Your task to perform on an android device: Go to wifi settings Image 0: 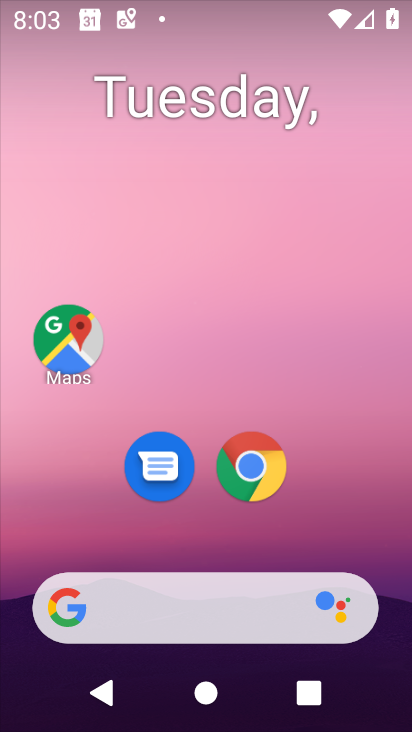
Step 0: drag from (326, 546) to (228, 120)
Your task to perform on an android device: Go to wifi settings Image 1: 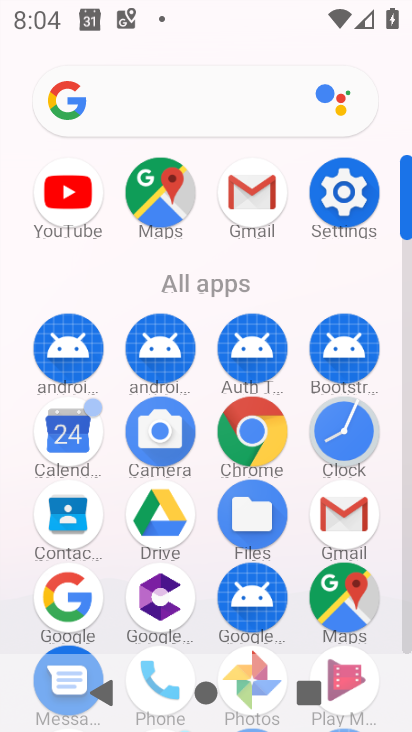
Step 1: click (365, 224)
Your task to perform on an android device: Go to wifi settings Image 2: 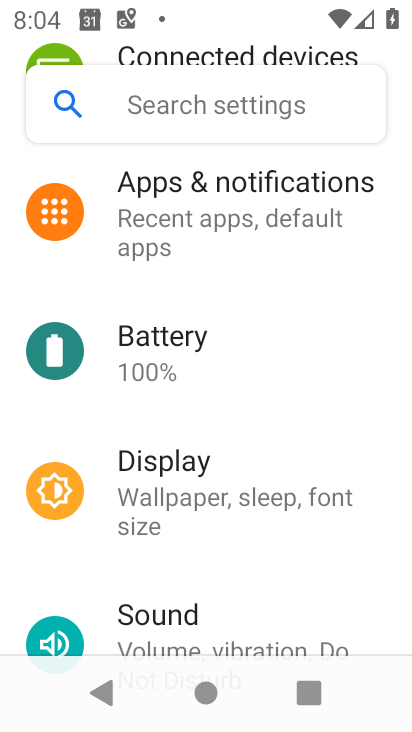
Step 2: drag from (310, 252) to (371, 458)
Your task to perform on an android device: Go to wifi settings Image 3: 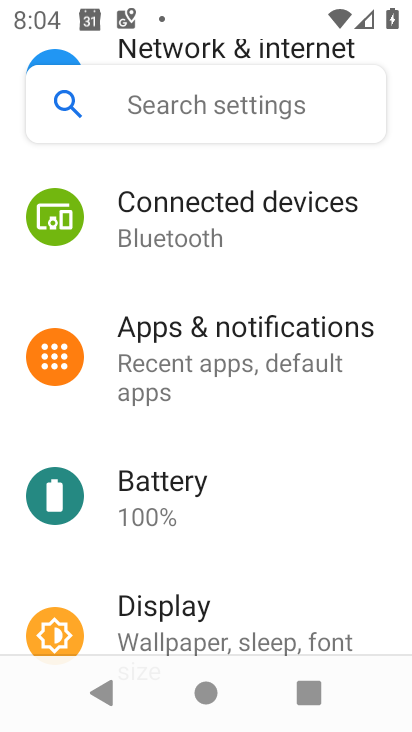
Step 3: click (213, 53)
Your task to perform on an android device: Go to wifi settings Image 4: 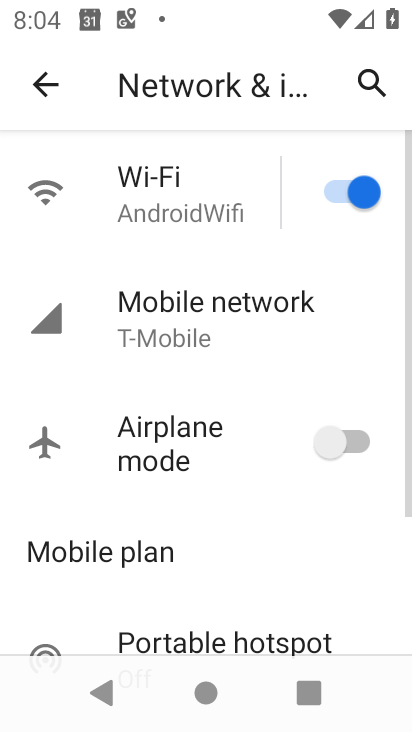
Step 4: click (151, 220)
Your task to perform on an android device: Go to wifi settings Image 5: 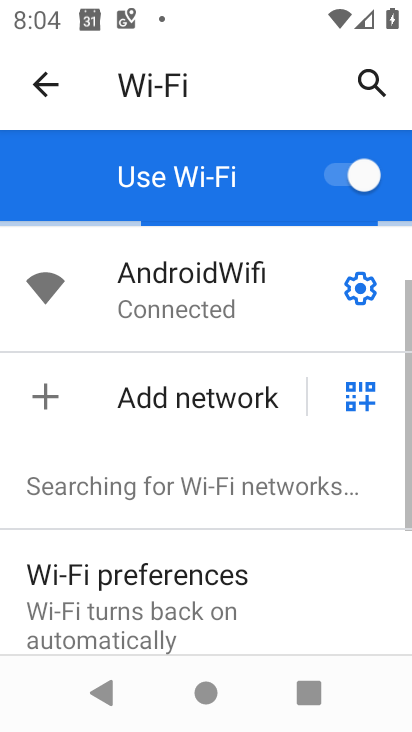
Step 5: task complete